Your task to perform on an android device: turn off location Image 0: 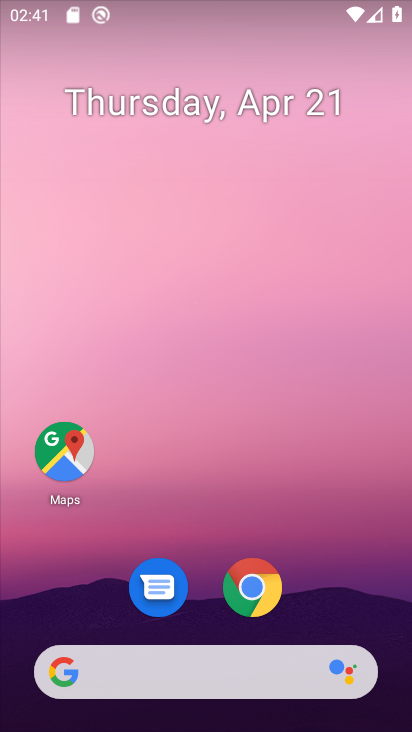
Step 0: click (363, 90)
Your task to perform on an android device: turn off location Image 1: 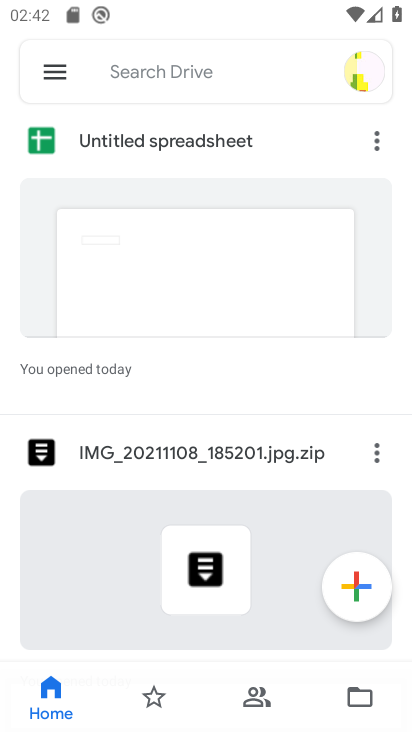
Step 1: press home button
Your task to perform on an android device: turn off location Image 2: 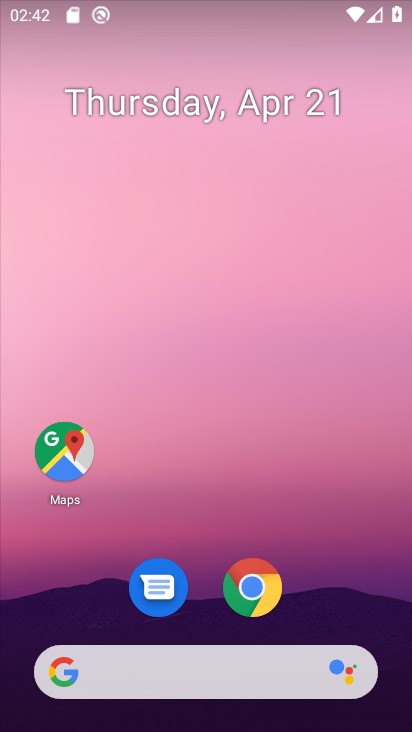
Step 2: drag from (355, 586) to (343, 136)
Your task to perform on an android device: turn off location Image 3: 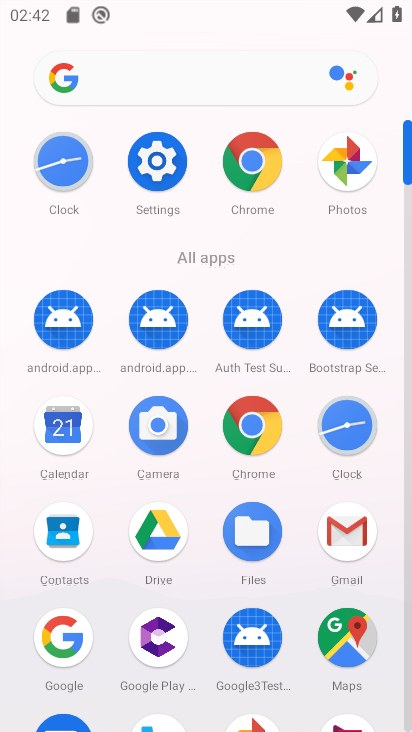
Step 3: click (153, 176)
Your task to perform on an android device: turn off location Image 4: 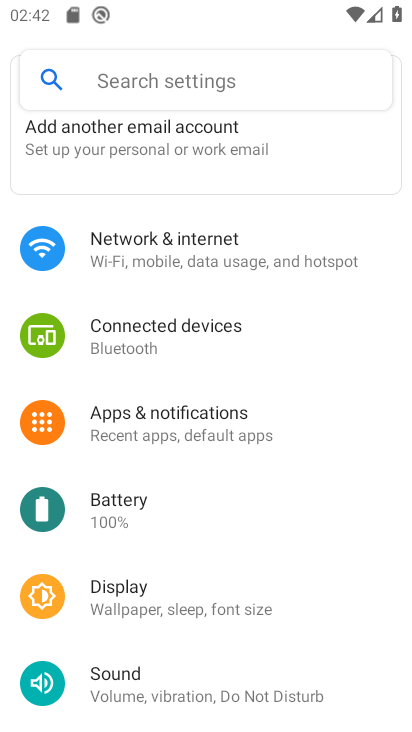
Step 4: drag from (354, 569) to (359, 428)
Your task to perform on an android device: turn off location Image 5: 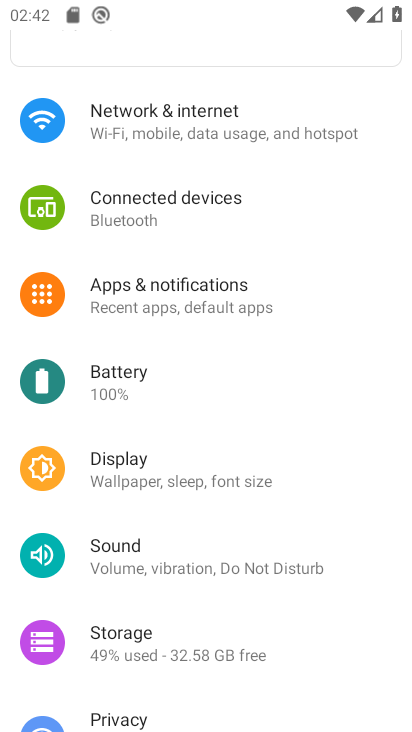
Step 5: drag from (355, 594) to (360, 457)
Your task to perform on an android device: turn off location Image 6: 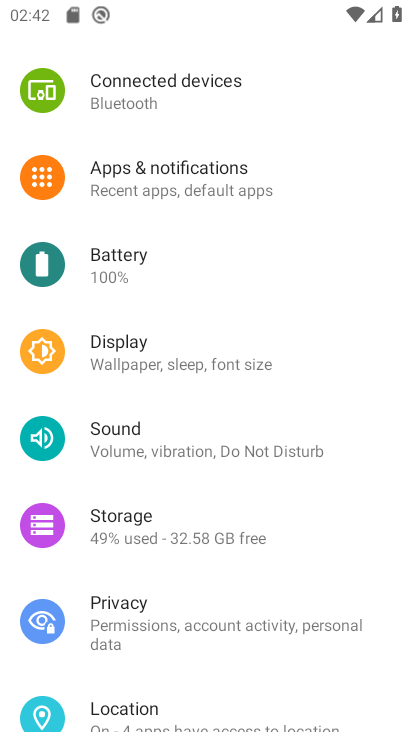
Step 6: drag from (351, 556) to (354, 383)
Your task to perform on an android device: turn off location Image 7: 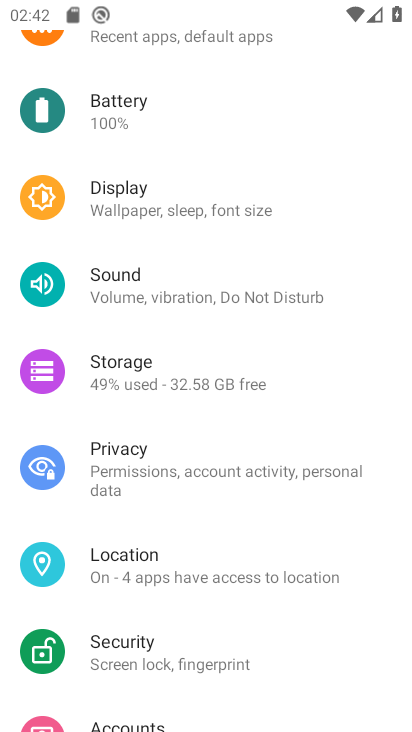
Step 7: drag from (365, 606) to (362, 398)
Your task to perform on an android device: turn off location Image 8: 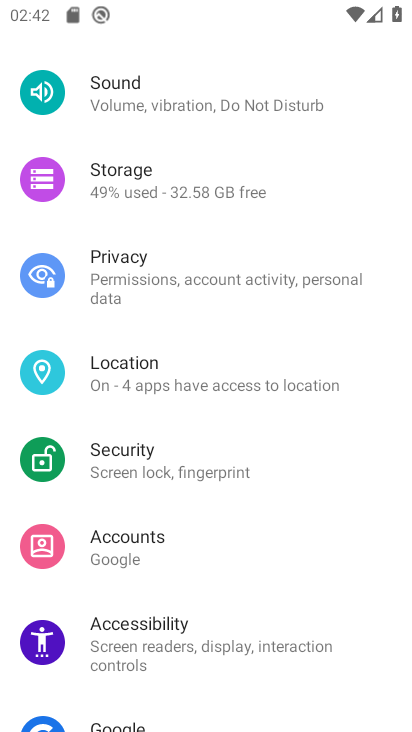
Step 8: drag from (372, 623) to (377, 472)
Your task to perform on an android device: turn off location Image 9: 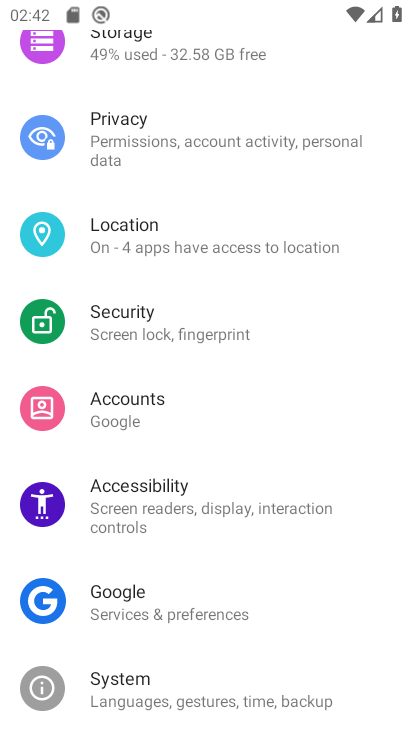
Step 9: drag from (369, 608) to (378, 407)
Your task to perform on an android device: turn off location Image 10: 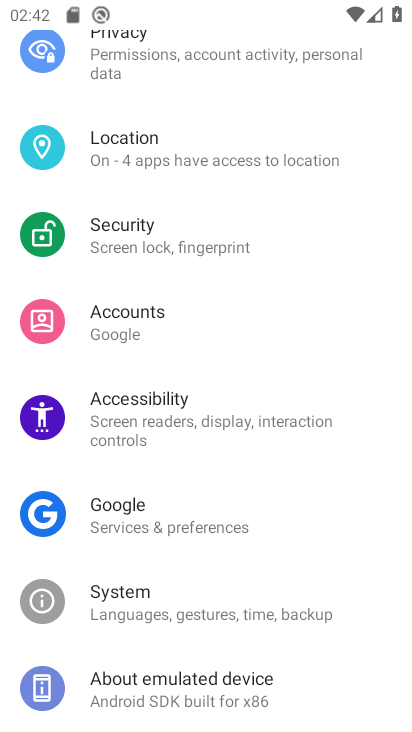
Step 10: drag from (366, 578) to (365, 420)
Your task to perform on an android device: turn off location Image 11: 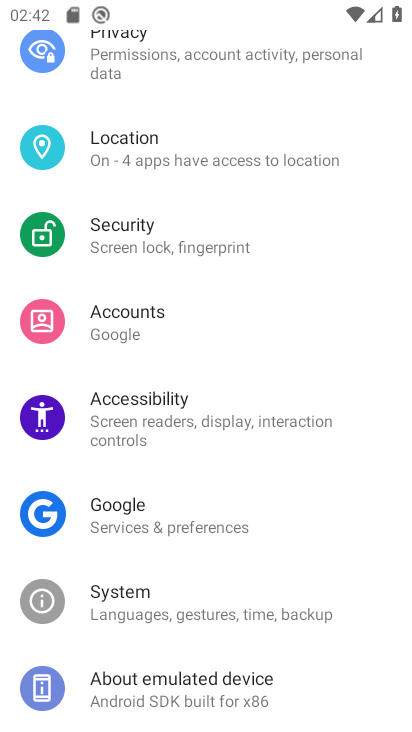
Step 11: drag from (369, 362) to (367, 493)
Your task to perform on an android device: turn off location Image 12: 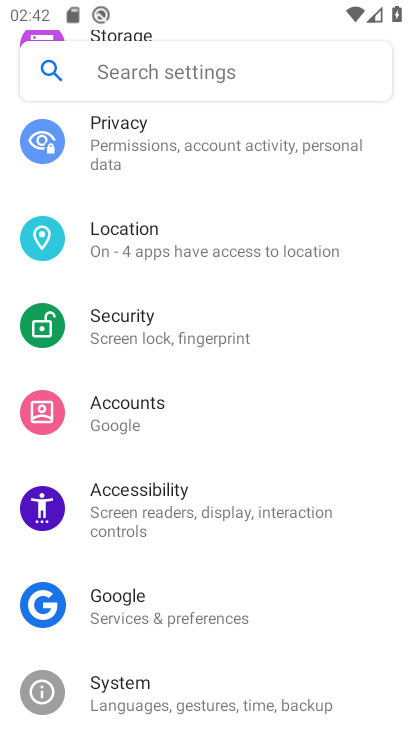
Step 12: drag from (365, 327) to (365, 484)
Your task to perform on an android device: turn off location Image 13: 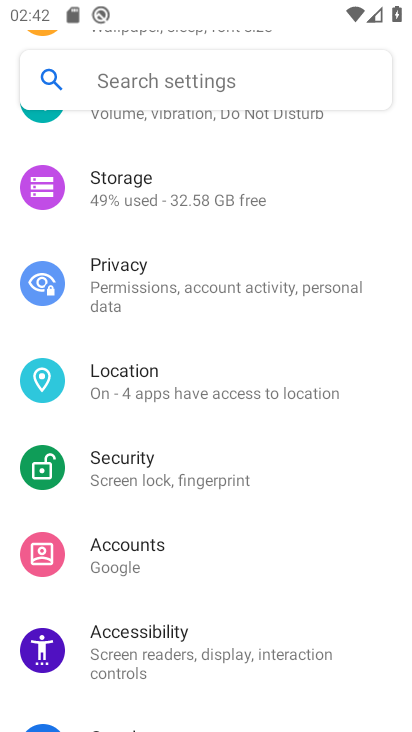
Step 13: drag from (366, 353) to (353, 490)
Your task to perform on an android device: turn off location Image 14: 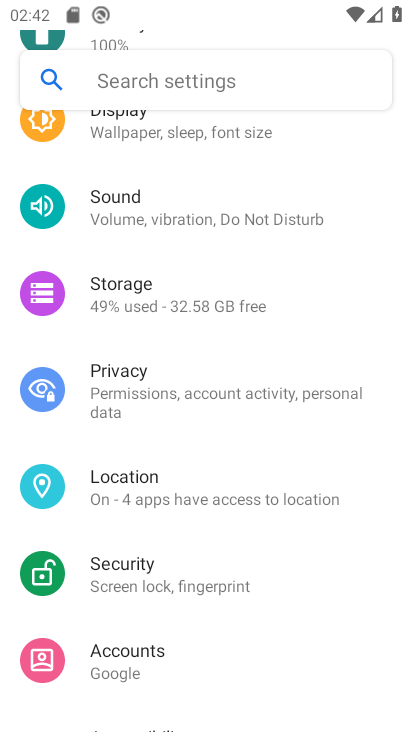
Step 14: click (304, 492)
Your task to perform on an android device: turn off location Image 15: 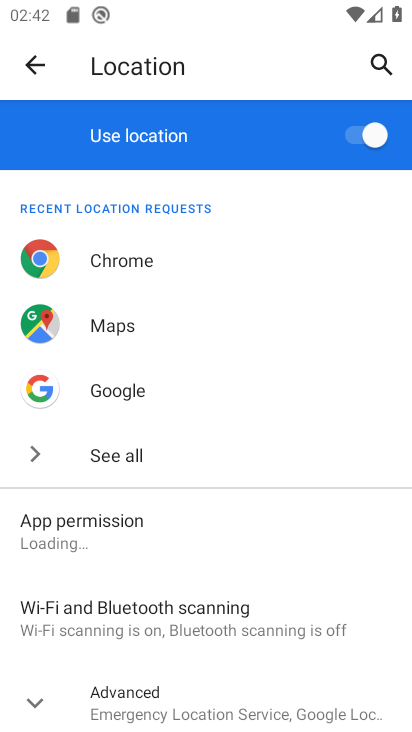
Step 15: click (359, 138)
Your task to perform on an android device: turn off location Image 16: 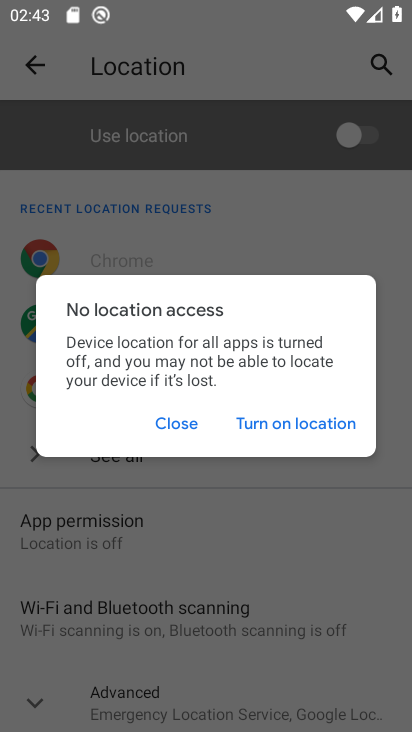
Step 16: task complete